Your task to perform on an android device: Open Android settings Image 0: 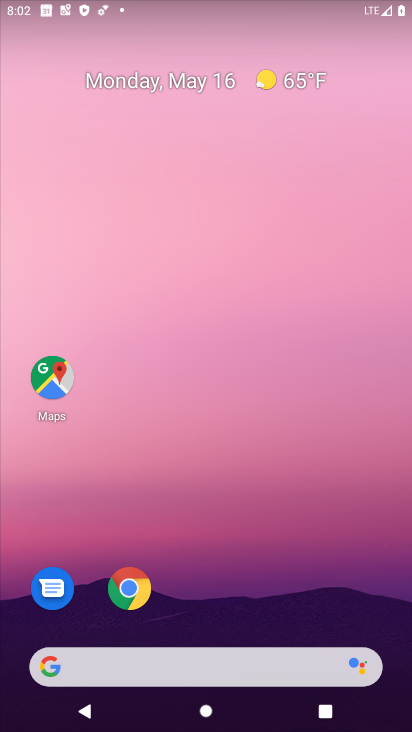
Step 0: drag from (174, 566) to (172, 52)
Your task to perform on an android device: Open Android settings Image 1: 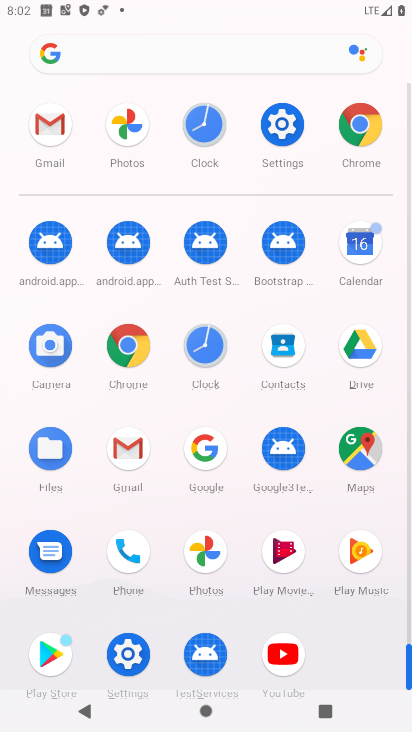
Step 1: drag from (12, 542) to (29, 173)
Your task to perform on an android device: Open Android settings Image 2: 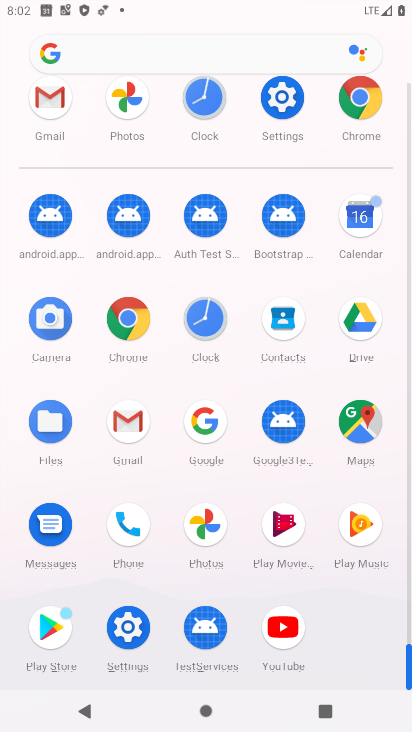
Step 2: click (126, 626)
Your task to perform on an android device: Open Android settings Image 3: 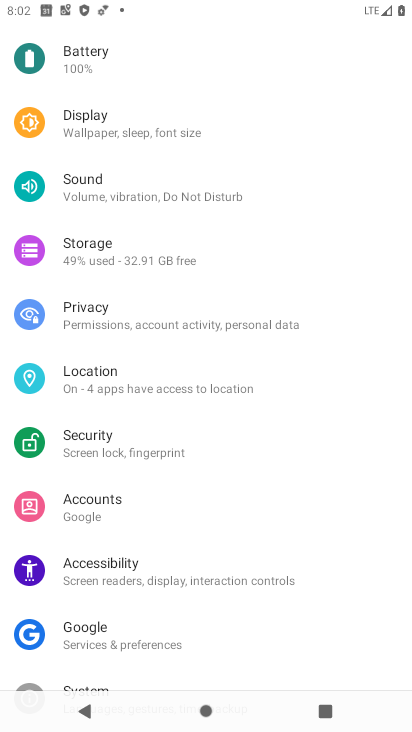
Step 3: task complete